Your task to perform on an android device: open a bookmark in the chrome app Image 0: 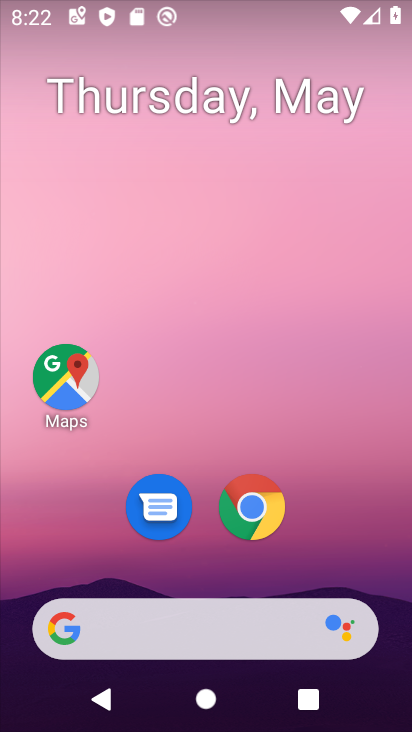
Step 0: drag from (373, 549) to (324, 74)
Your task to perform on an android device: open a bookmark in the chrome app Image 1: 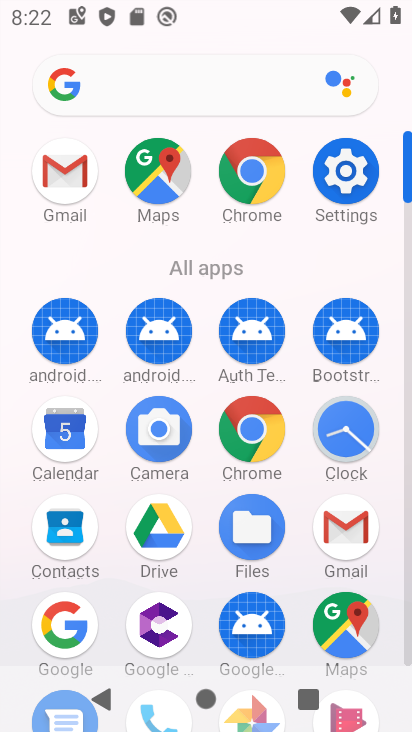
Step 1: click (261, 165)
Your task to perform on an android device: open a bookmark in the chrome app Image 2: 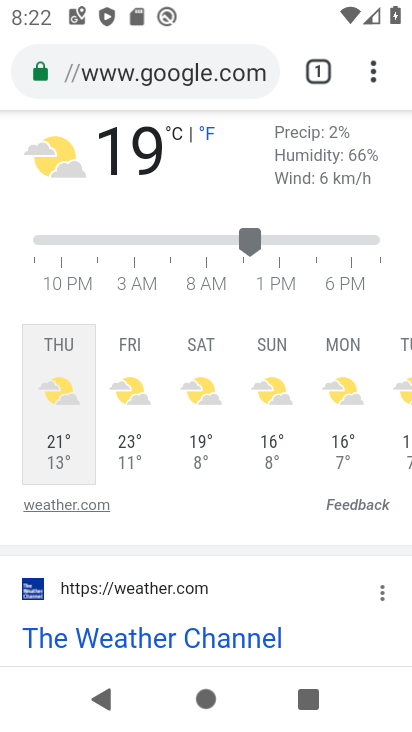
Step 2: click (370, 79)
Your task to perform on an android device: open a bookmark in the chrome app Image 3: 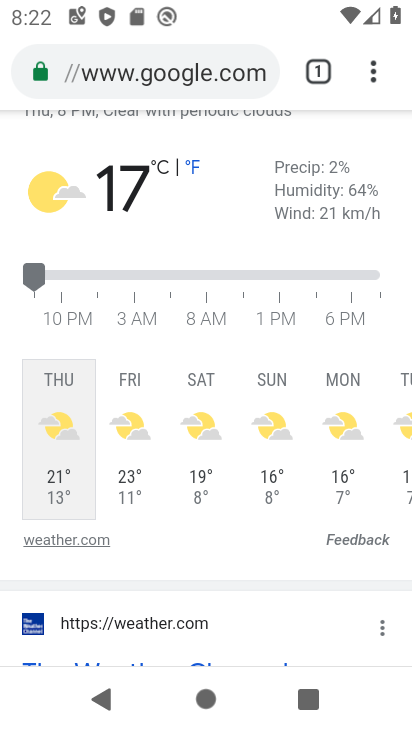
Step 3: task complete